Your task to perform on an android device: Is it going to rain tomorrow? Image 0: 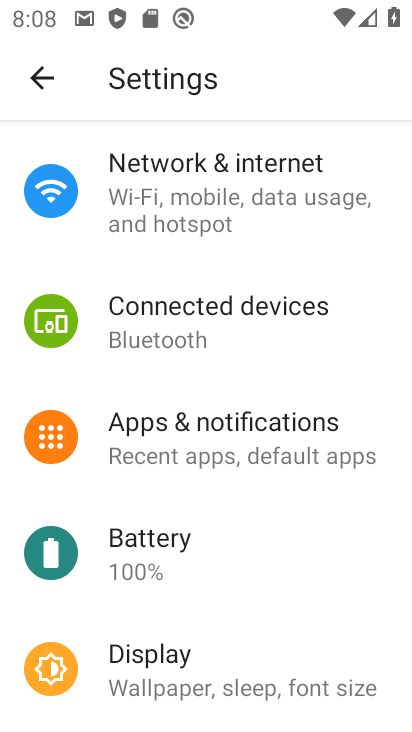
Step 0: press back button
Your task to perform on an android device: Is it going to rain tomorrow? Image 1: 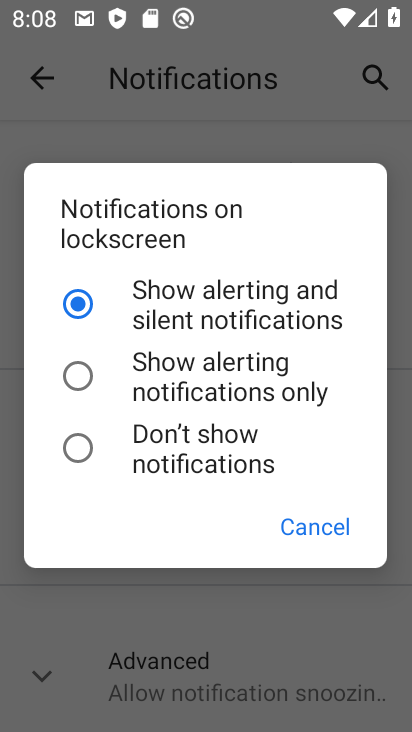
Step 1: click (301, 531)
Your task to perform on an android device: Is it going to rain tomorrow? Image 2: 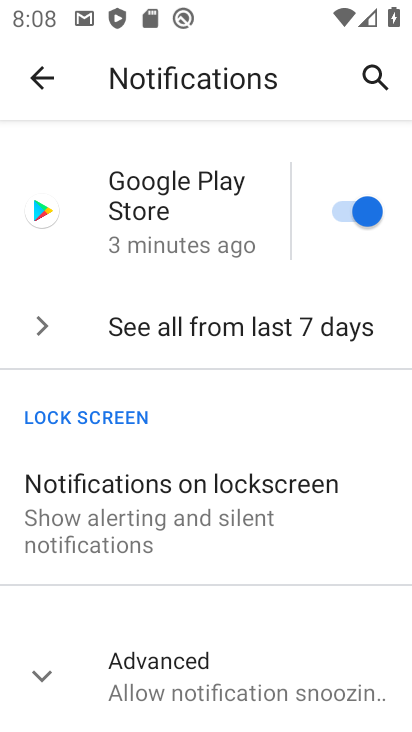
Step 2: press back button
Your task to perform on an android device: Is it going to rain tomorrow? Image 3: 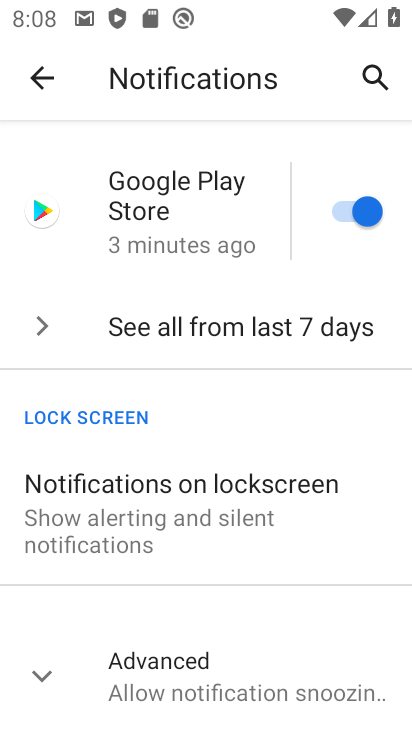
Step 3: press back button
Your task to perform on an android device: Is it going to rain tomorrow? Image 4: 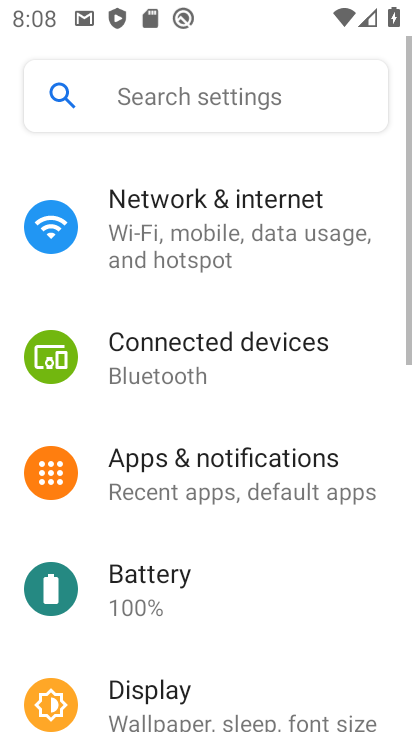
Step 4: press back button
Your task to perform on an android device: Is it going to rain tomorrow? Image 5: 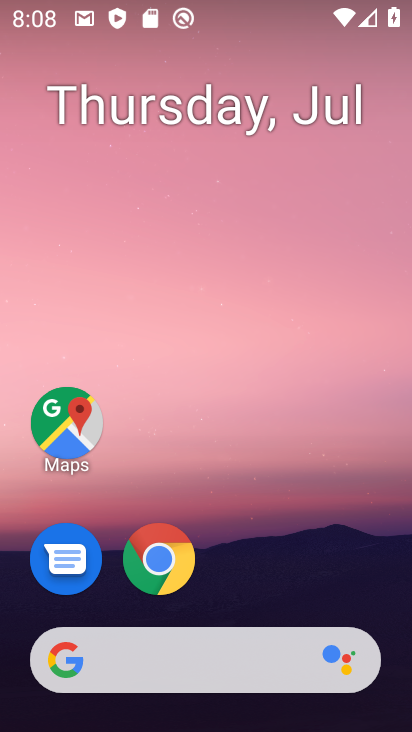
Step 5: click (222, 650)
Your task to perform on an android device: Is it going to rain tomorrow? Image 6: 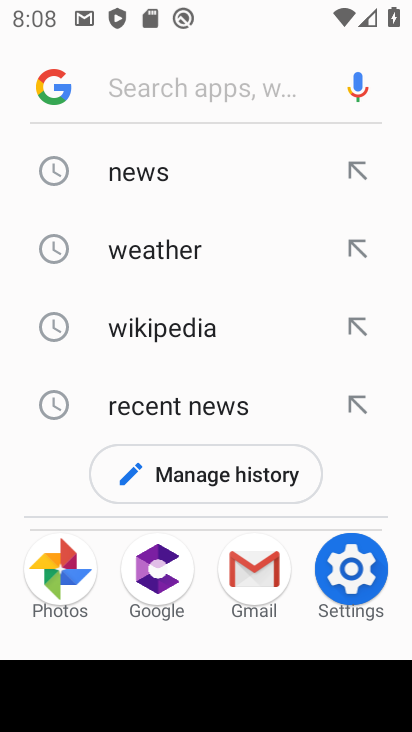
Step 6: click (202, 259)
Your task to perform on an android device: Is it going to rain tomorrow? Image 7: 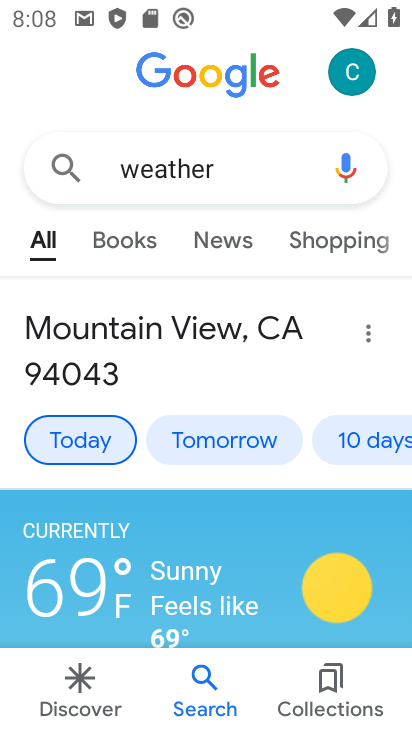
Step 7: click (200, 442)
Your task to perform on an android device: Is it going to rain tomorrow? Image 8: 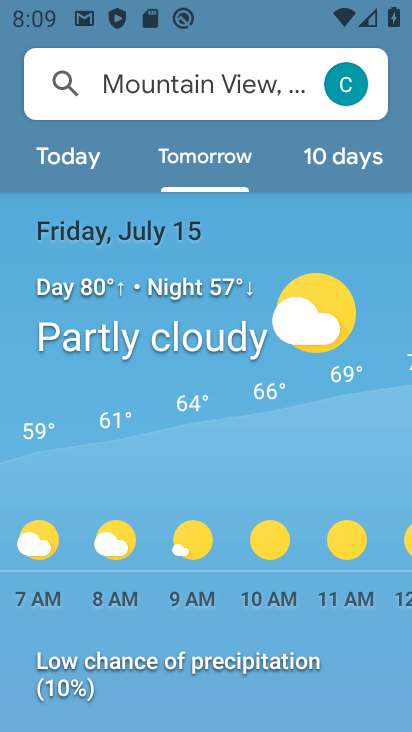
Step 8: task complete